Your task to perform on an android device: Search for the best 4k TVs Image 0: 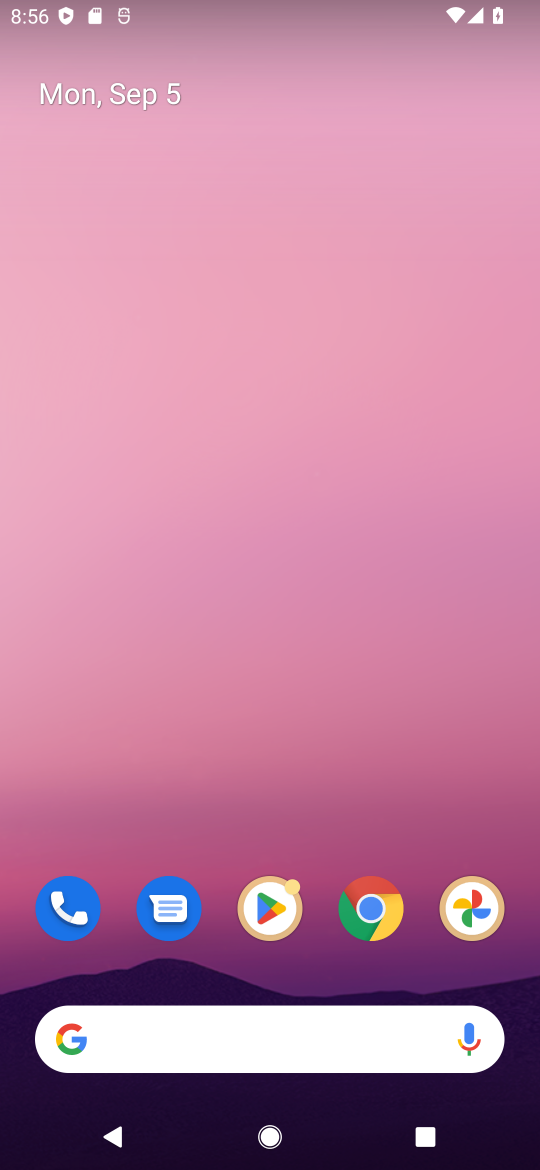
Step 0: drag from (263, 939) to (243, 181)
Your task to perform on an android device: Search for the best 4k TVs Image 1: 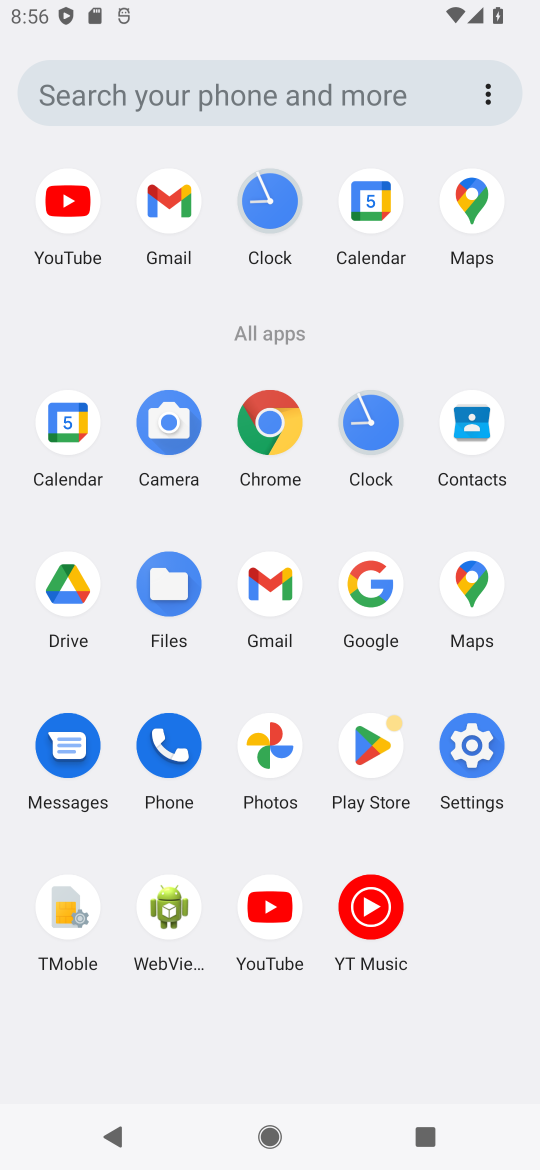
Step 1: click (381, 577)
Your task to perform on an android device: Search for the best 4k TVs Image 2: 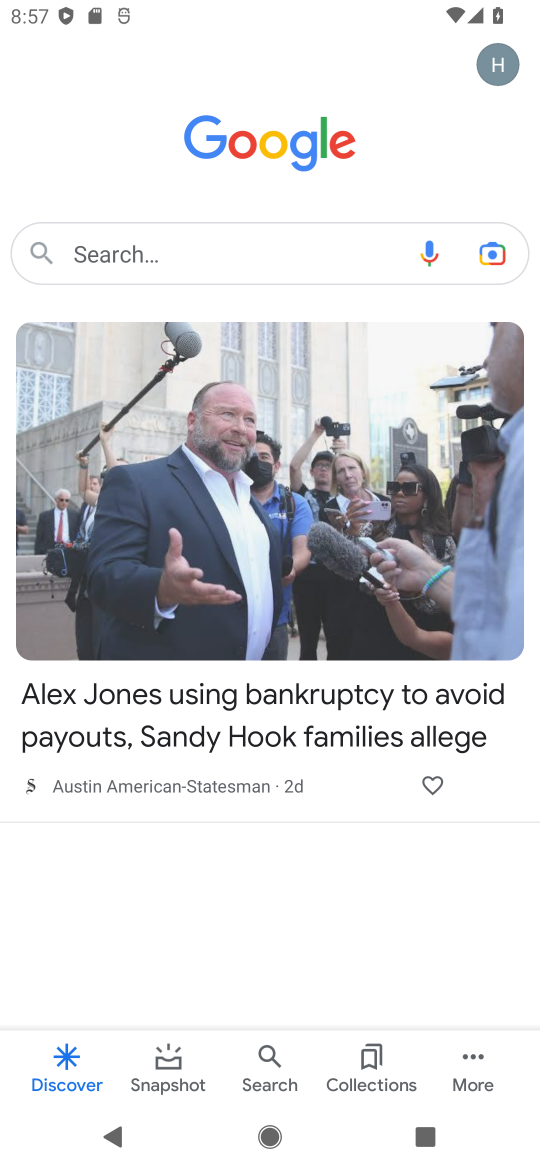
Step 2: click (145, 242)
Your task to perform on an android device: Search for the best 4k TVs Image 3: 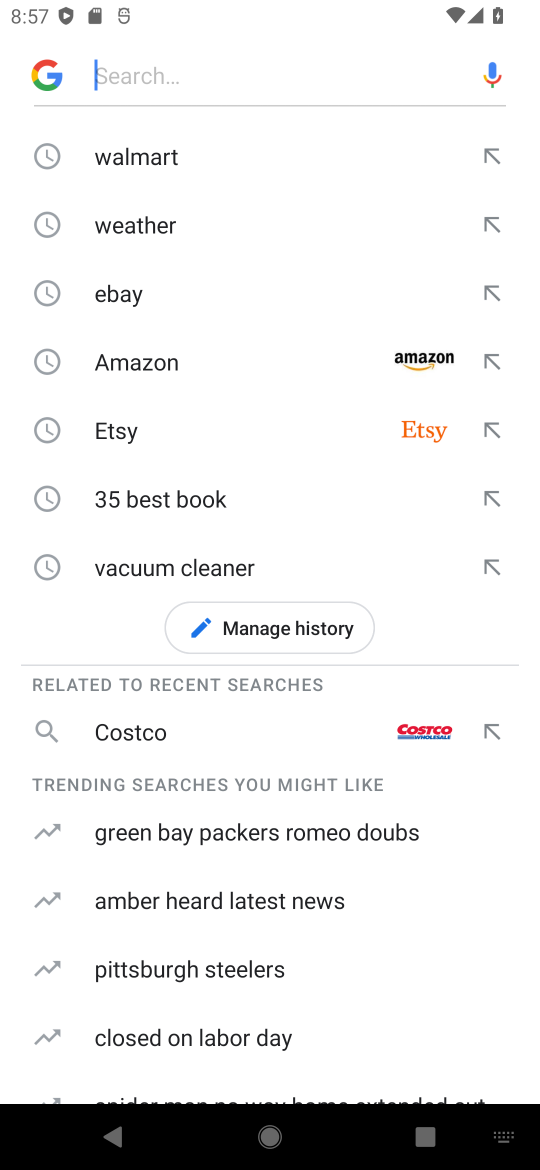
Step 3: type "the best 4k TVs"
Your task to perform on an android device: Search for the best 4k TVs Image 4: 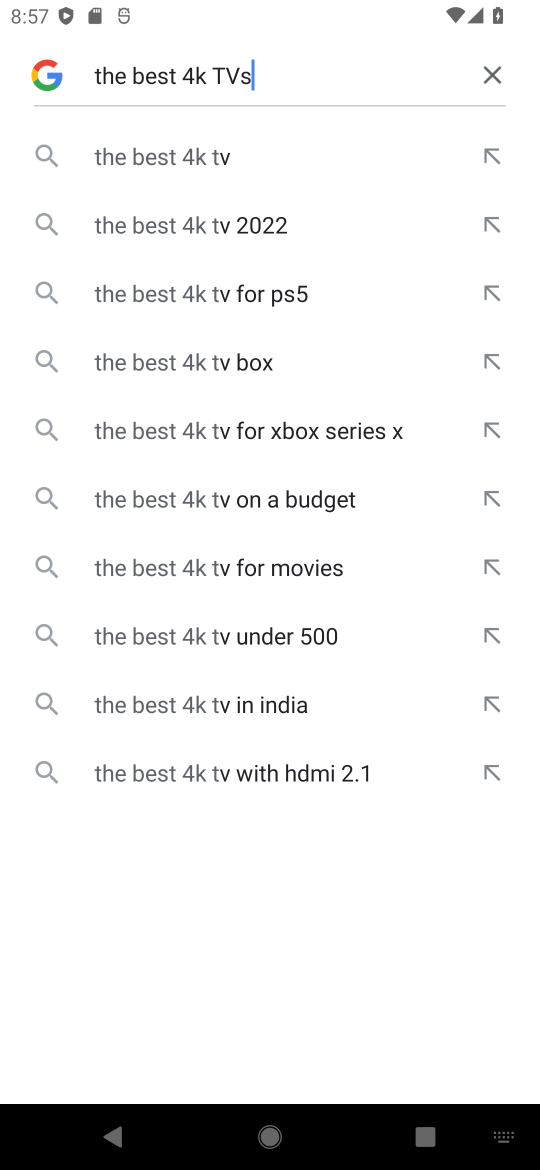
Step 4: type ""
Your task to perform on an android device: Search for the best 4k TVs Image 5: 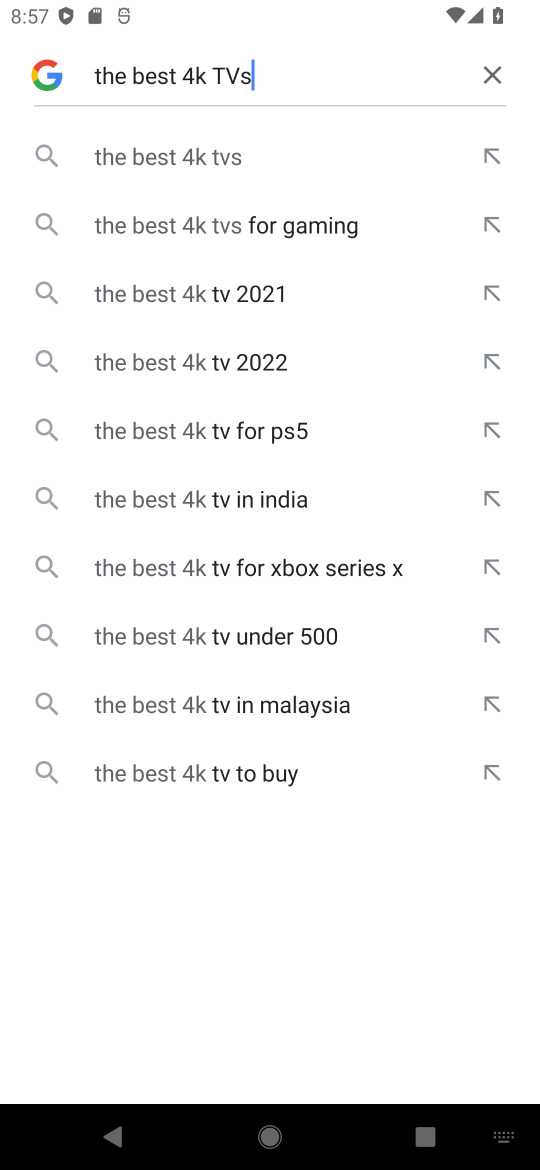
Step 5: click (156, 156)
Your task to perform on an android device: Search for the best 4k TVs Image 6: 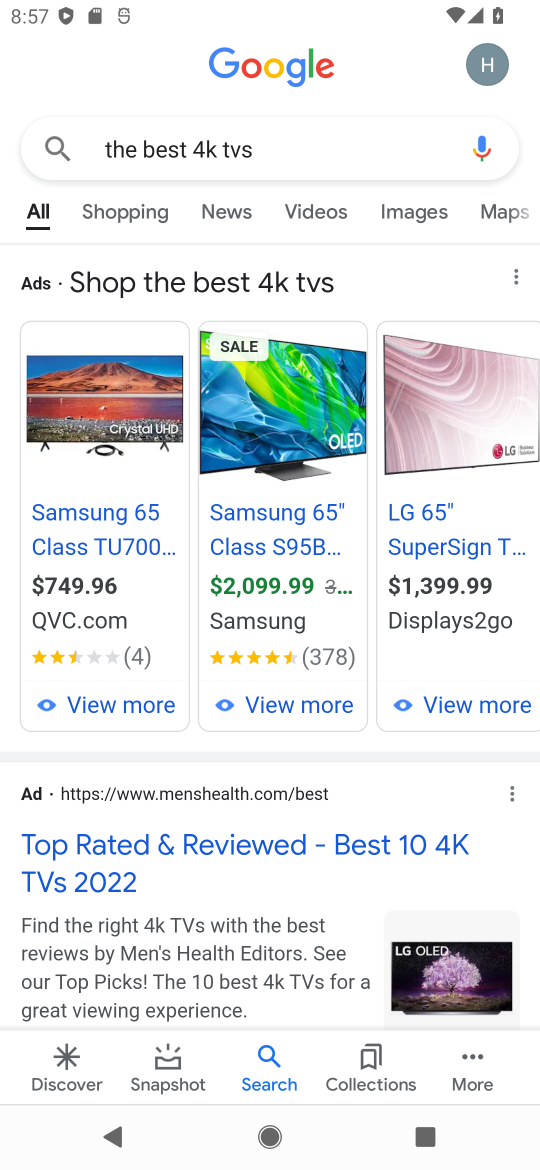
Step 6: task complete